Your task to perform on an android device: Open ESPN.com Image 0: 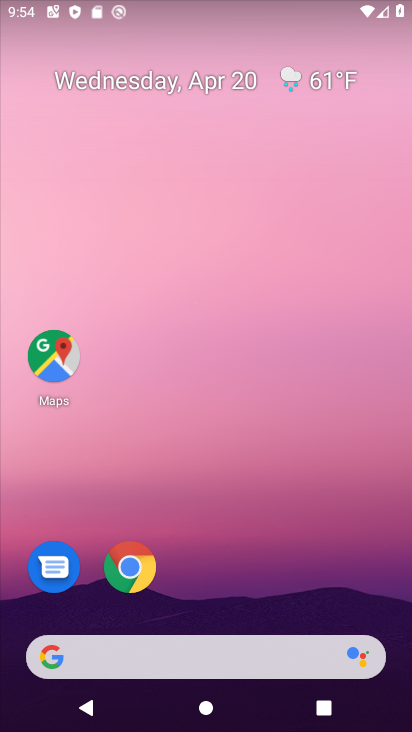
Step 0: click (193, 649)
Your task to perform on an android device: Open ESPN.com Image 1: 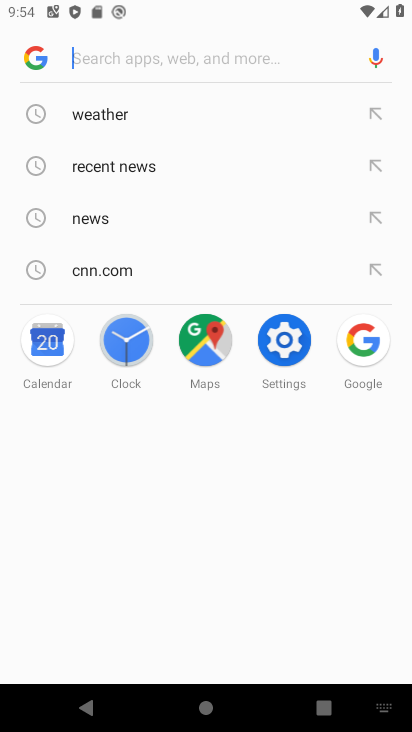
Step 1: type "ESPN.com"
Your task to perform on an android device: Open ESPN.com Image 2: 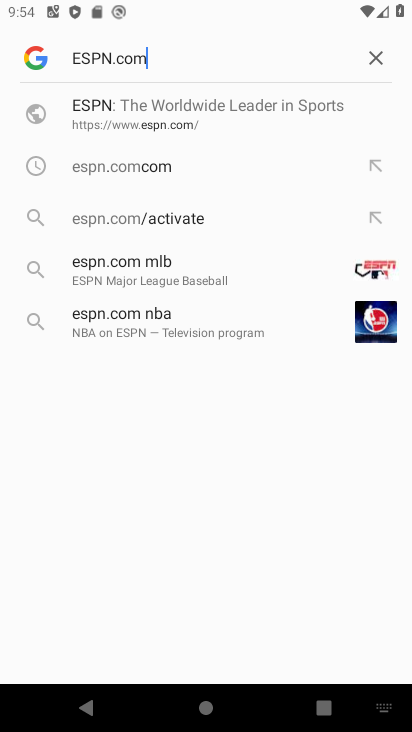
Step 2: click (174, 115)
Your task to perform on an android device: Open ESPN.com Image 3: 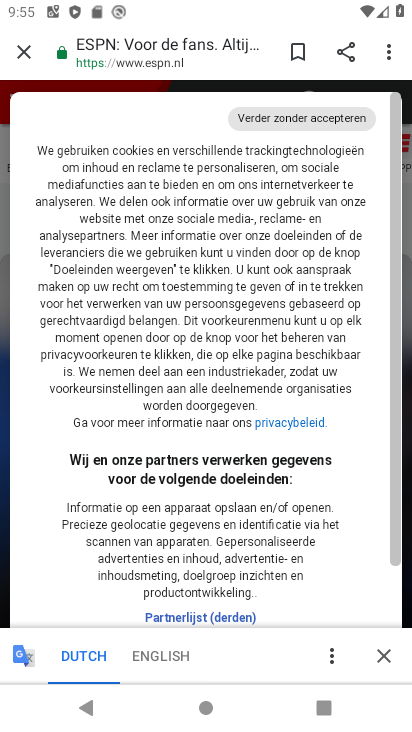
Step 3: task complete